Your task to perform on an android device: What's the weather? Image 0: 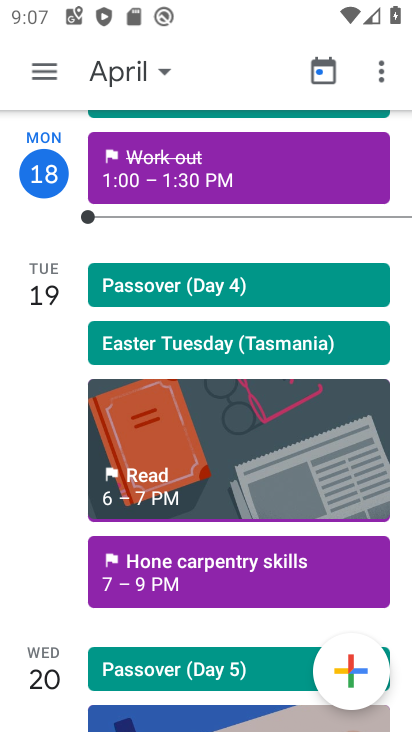
Step 0: press back button
Your task to perform on an android device: What's the weather? Image 1: 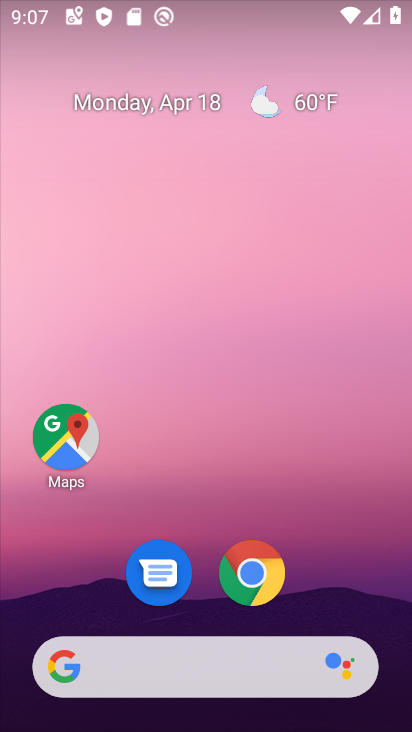
Step 1: click (270, 99)
Your task to perform on an android device: What's the weather? Image 2: 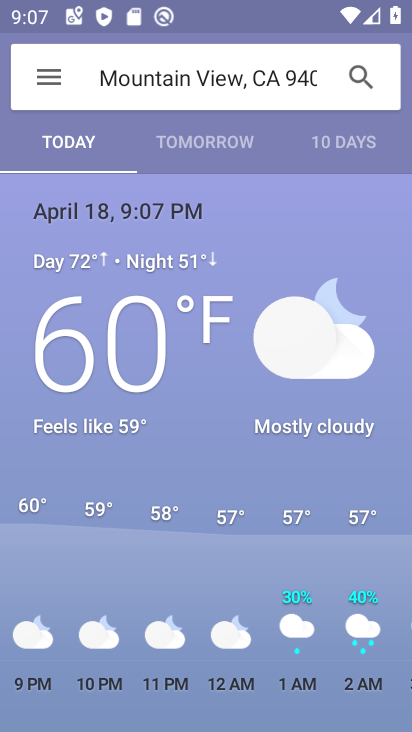
Step 2: task complete